Your task to perform on an android device: turn off improve location accuracy Image 0: 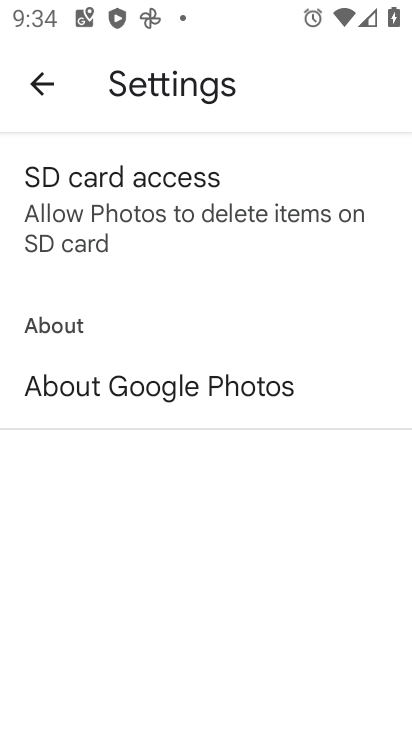
Step 0: press home button
Your task to perform on an android device: turn off improve location accuracy Image 1: 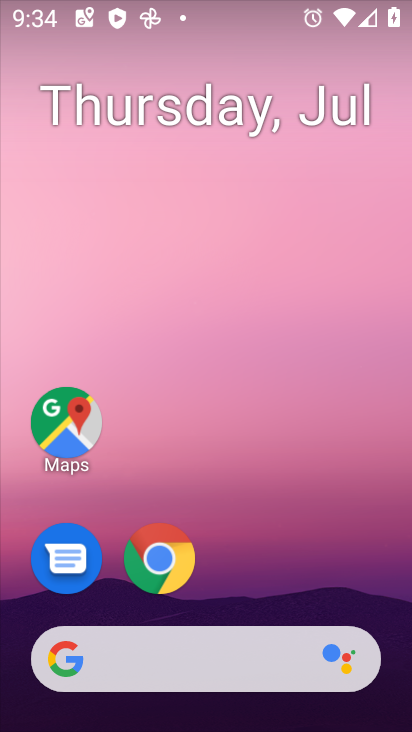
Step 1: drag from (354, 555) to (359, 67)
Your task to perform on an android device: turn off improve location accuracy Image 2: 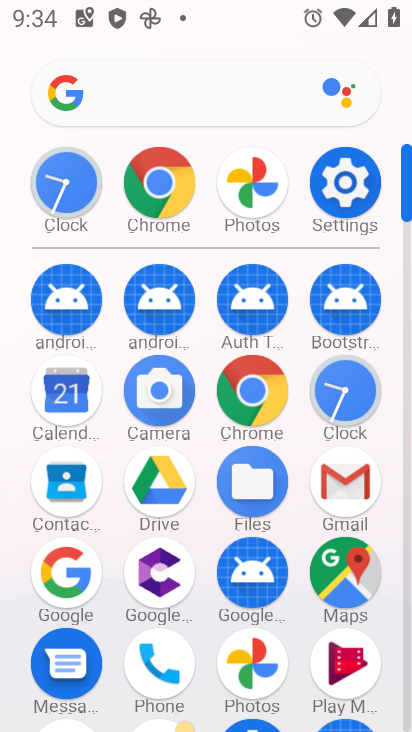
Step 2: click (359, 208)
Your task to perform on an android device: turn off improve location accuracy Image 3: 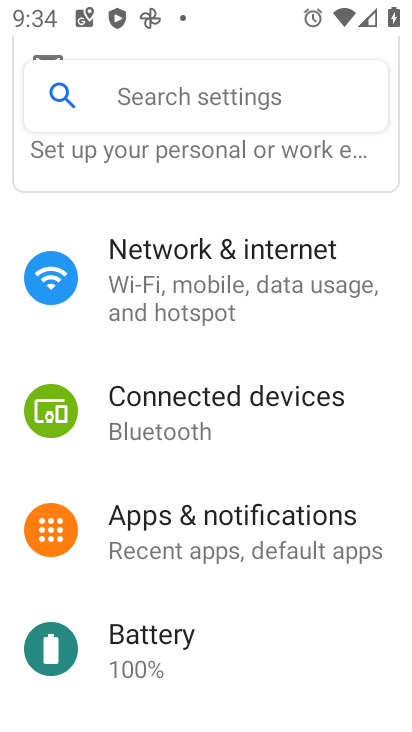
Step 3: drag from (382, 428) to (373, 343)
Your task to perform on an android device: turn off improve location accuracy Image 4: 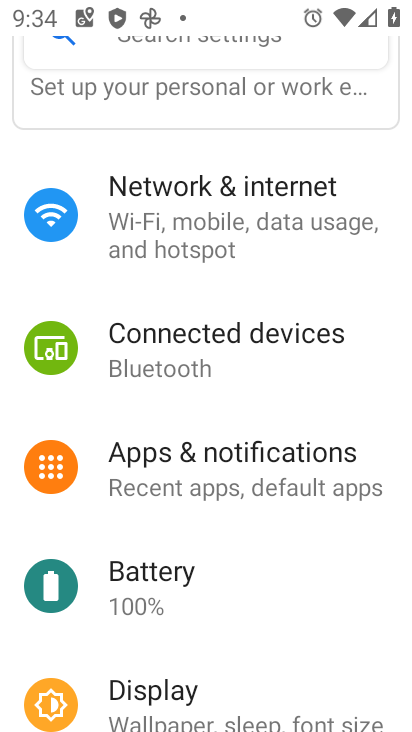
Step 4: drag from (365, 534) to (365, 434)
Your task to perform on an android device: turn off improve location accuracy Image 5: 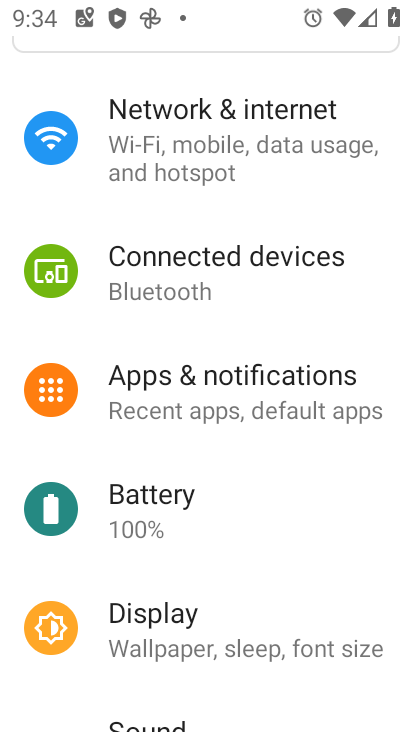
Step 5: drag from (355, 527) to (364, 437)
Your task to perform on an android device: turn off improve location accuracy Image 6: 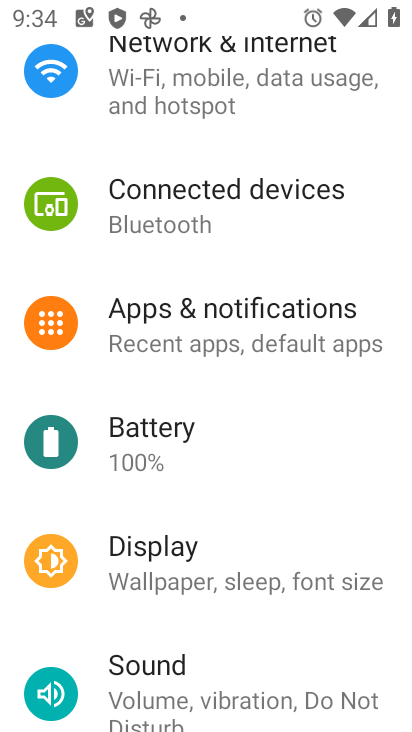
Step 6: drag from (342, 607) to (350, 518)
Your task to perform on an android device: turn off improve location accuracy Image 7: 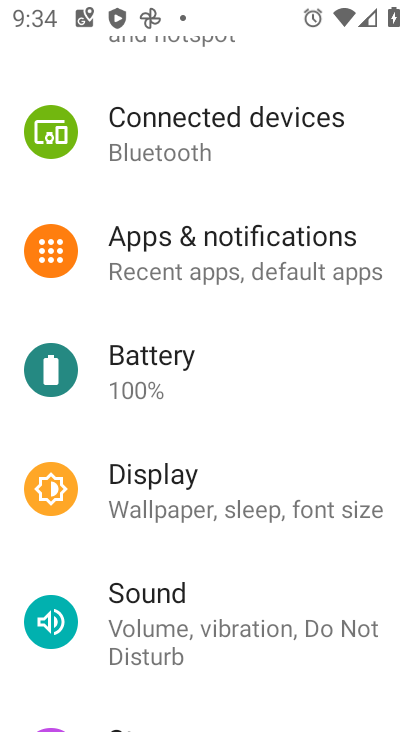
Step 7: drag from (341, 599) to (347, 504)
Your task to perform on an android device: turn off improve location accuracy Image 8: 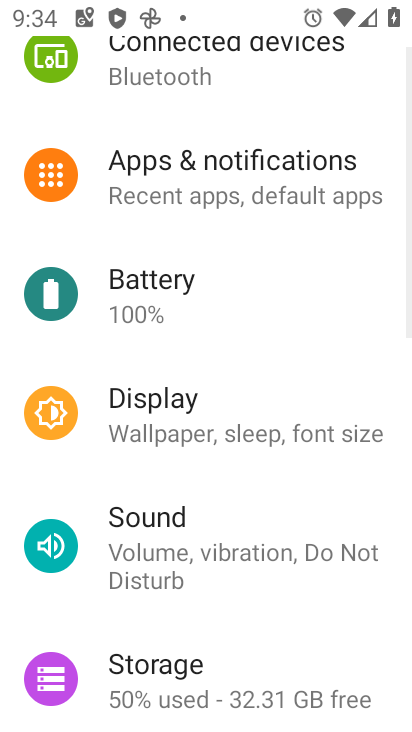
Step 8: drag from (339, 617) to (337, 524)
Your task to perform on an android device: turn off improve location accuracy Image 9: 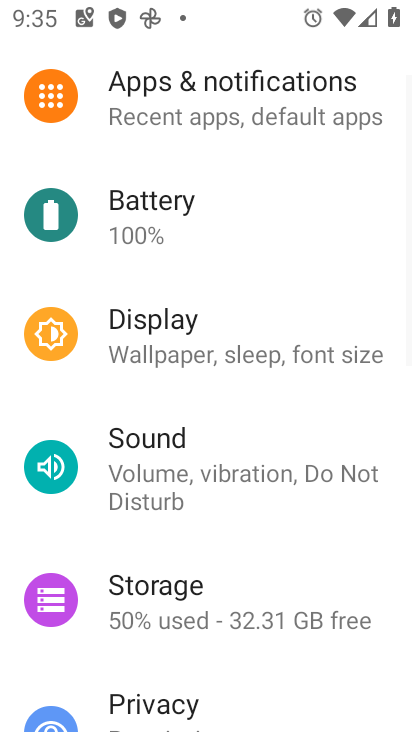
Step 9: drag from (341, 605) to (345, 527)
Your task to perform on an android device: turn off improve location accuracy Image 10: 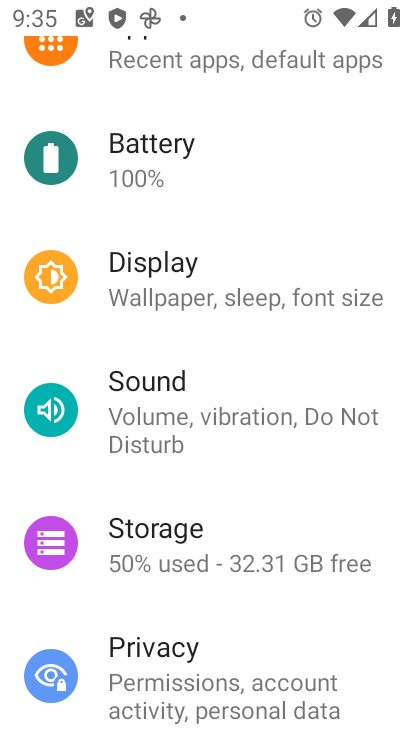
Step 10: drag from (339, 606) to (343, 525)
Your task to perform on an android device: turn off improve location accuracy Image 11: 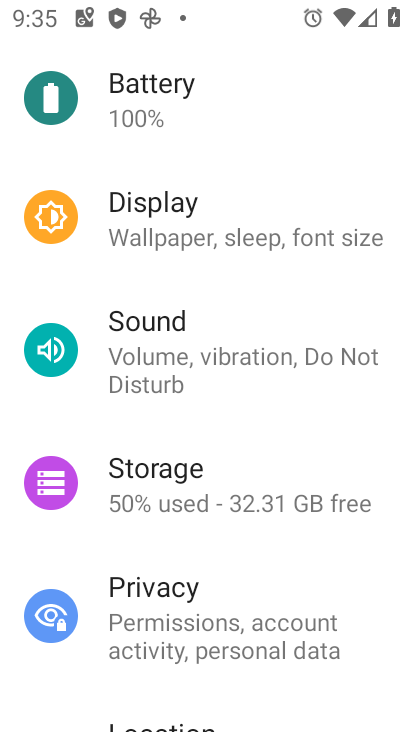
Step 11: drag from (359, 612) to (360, 519)
Your task to perform on an android device: turn off improve location accuracy Image 12: 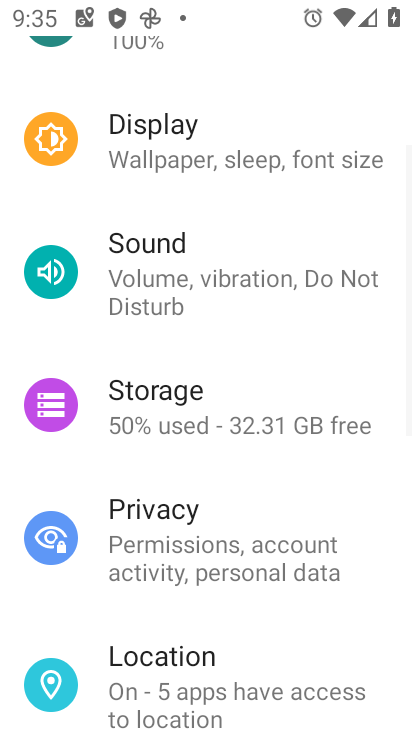
Step 12: drag from (361, 615) to (362, 541)
Your task to perform on an android device: turn off improve location accuracy Image 13: 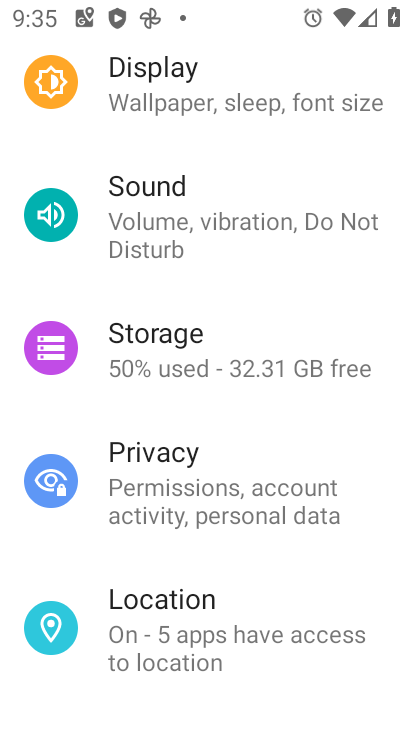
Step 13: drag from (374, 632) to (372, 534)
Your task to perform on an android device: turn off improve location accuracy Image 14: 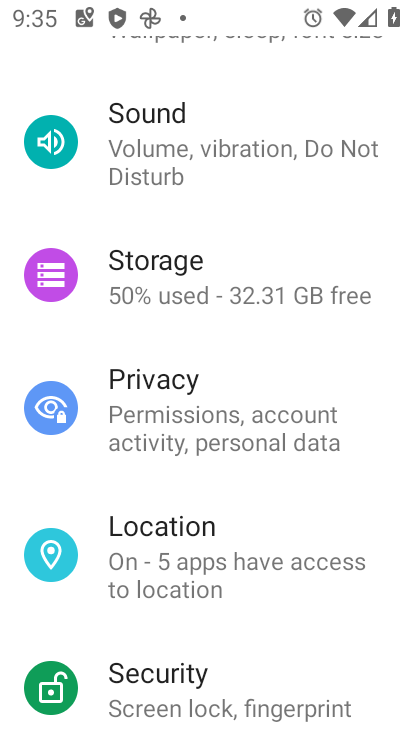
Step 14: drag from (362, 633) to (363, 530)
Your task to perform on an android device: turn off improve location accuracy Image 15: 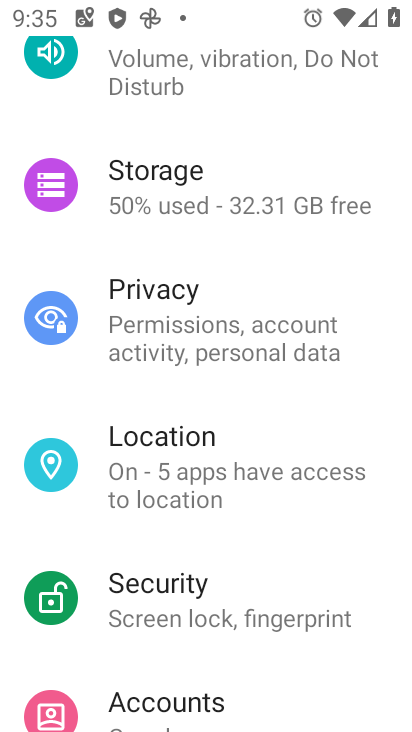
Step 15: drag from (368, 653) to (361, 555)
Your task to perform on an android device: turn off improve location accuracy Image 16: 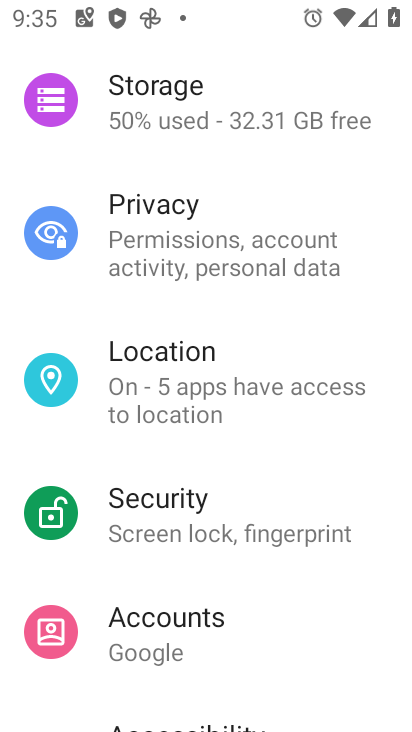
Step 16: drag from (365, 643) to (366, 567)
Your task to perform on an android device: turn off improve location accuracy Image 17: 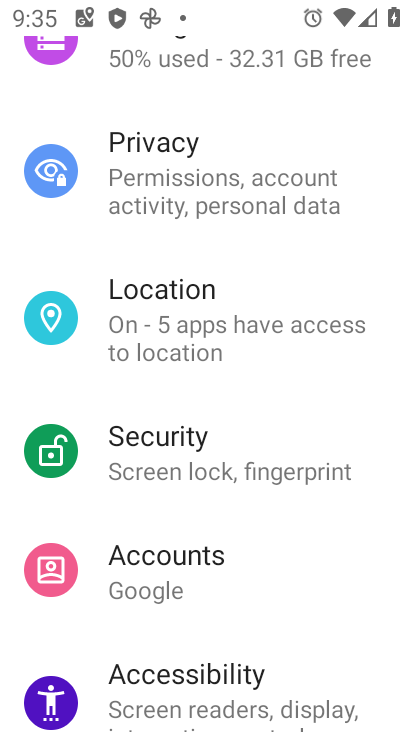
Step 17: click (299, 362)
Your task to perform on an android device: turn off improve location accuracy Image 18: 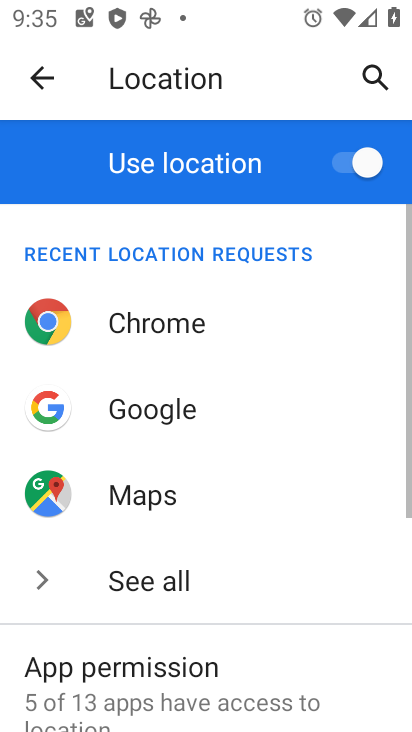
Step 18: drag from (322, 579) to (322, 499)
Your task to perform on an android device: turn off improve location accuracy Image 19: 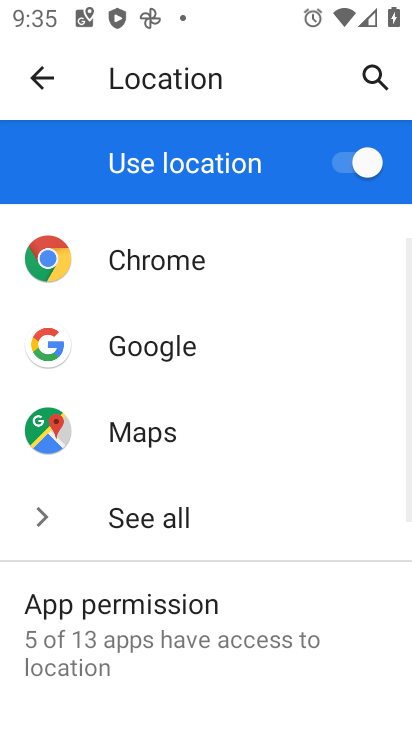
Step 19: drag from (321, 591) to (318, 518)
Your task to perform on an android device: turn off improve location accuracy Image 20: 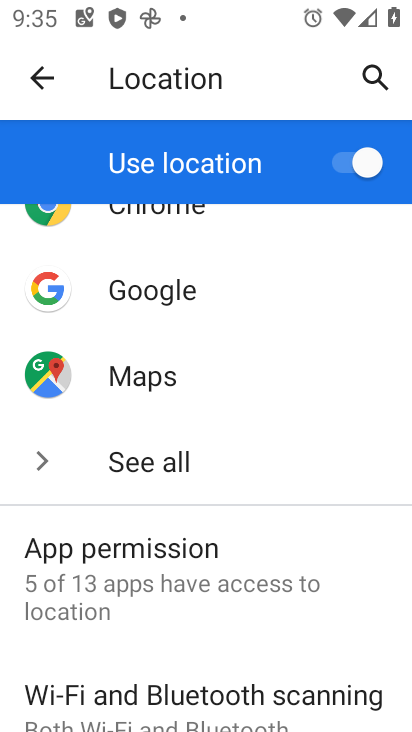
Step 20: drag from (320, 624) to (316, 534)
Your task to perform on an android device: turn off improve location accuracy Image 21: 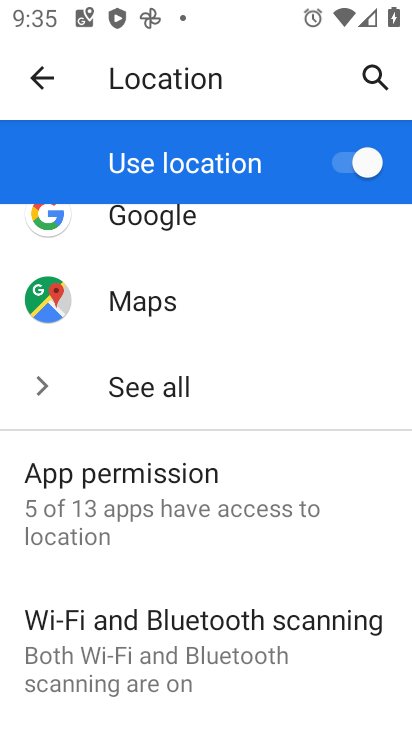
Step 21: drag from (308, 630) to (314, 554)
Your task to perform on an android device: turn off improve location accuracy Image 22: 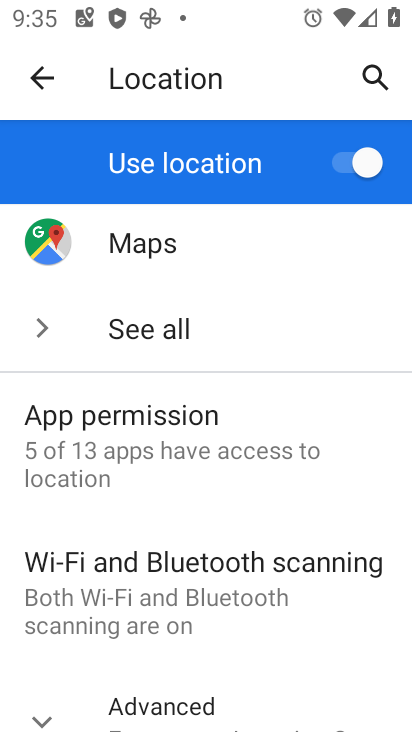
Step 22: drag from (318, 638) to (326, 546)
Your task to perform on an android device: turn off improve location accuracy Image 23: 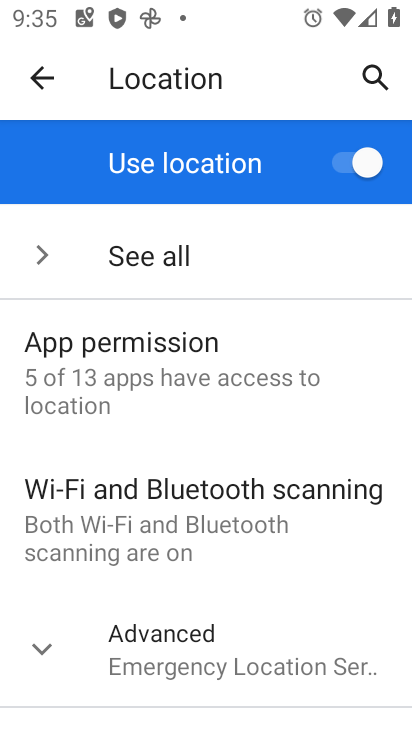
Step 23: drag from (313, 631) to (319, 535)
Your task to perform on an android device: turn off improve location accuracy Image 24: 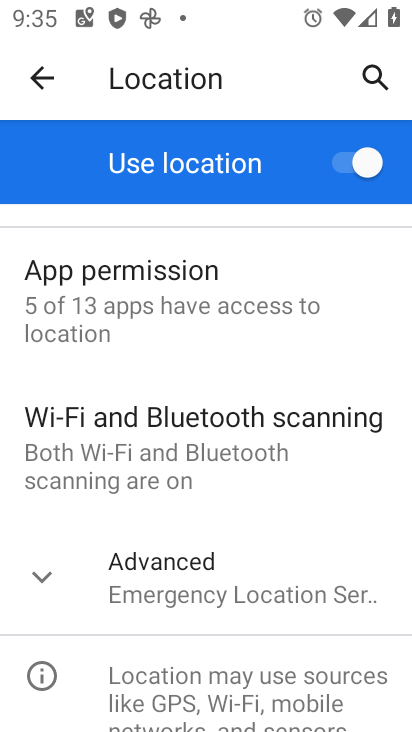
Step 24: drag from (302, 634) to (303, 530)
Your task to perform on an android device: turn off improve location accuracy Image 25: 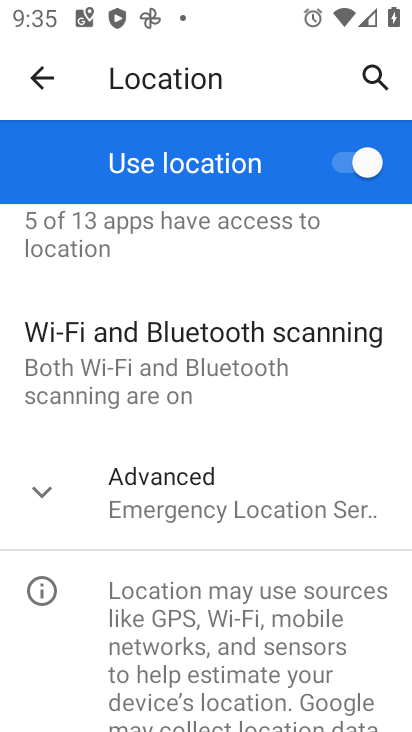
Step 25: click (295, 485)
Your task to perform on an android device: turn off improve location accuracy Image 26: 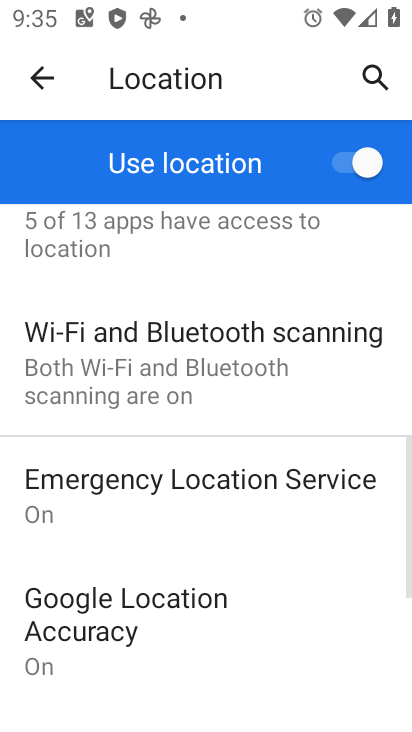
Step 26: drag from (286, 613) to (286, 543)
Your task to perform on an android device: turn off improve location accuracy Image 27: 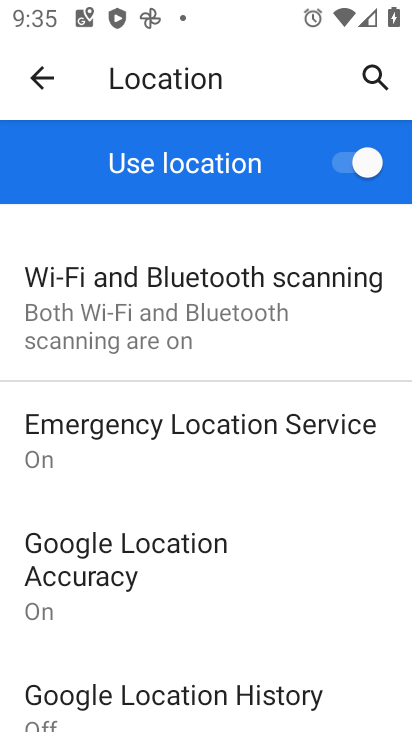
Step 27: drag from (277, 644) to (276, 544)
Your task to perform on an android device: turn off improve location accuracy Image 28: 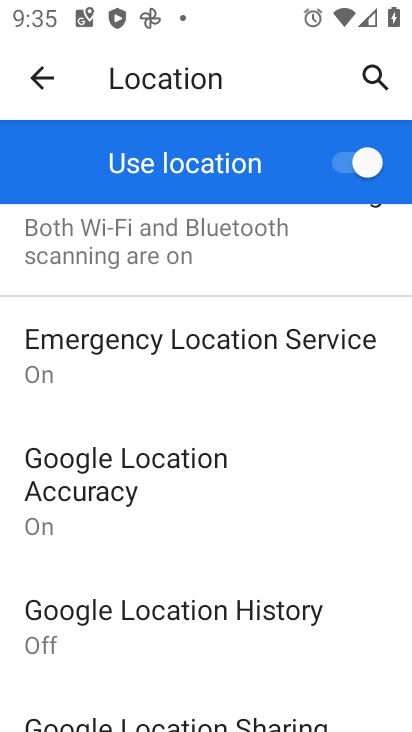
Step 28: click (269, 516)
Your task to perform on an android device: turn off improve location accuracy Image 29: 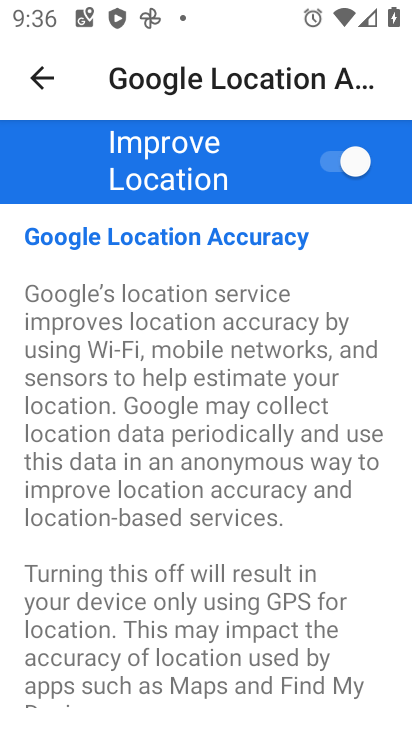
Step 29: click (351, 160)
Your task to perform on an android device: turn off improve location accuracy Image 30: 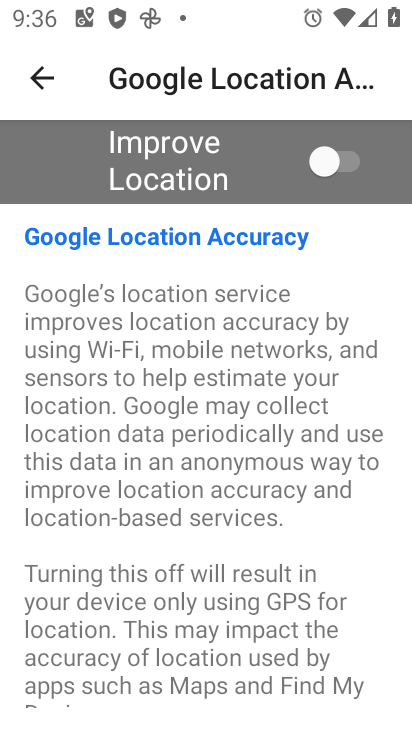
Step 30: task complete